Your task to perform on an android device: Open Google Chrome Image 0: 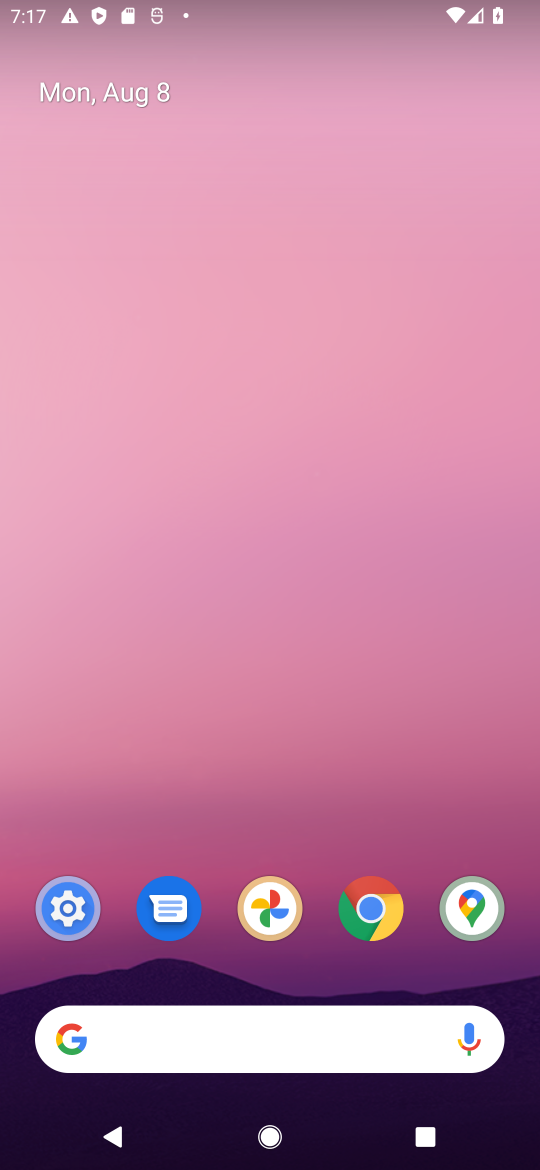
Step 0: click (372, 915)
Your task to perform on an android device: Open Google Chrome Image 1: 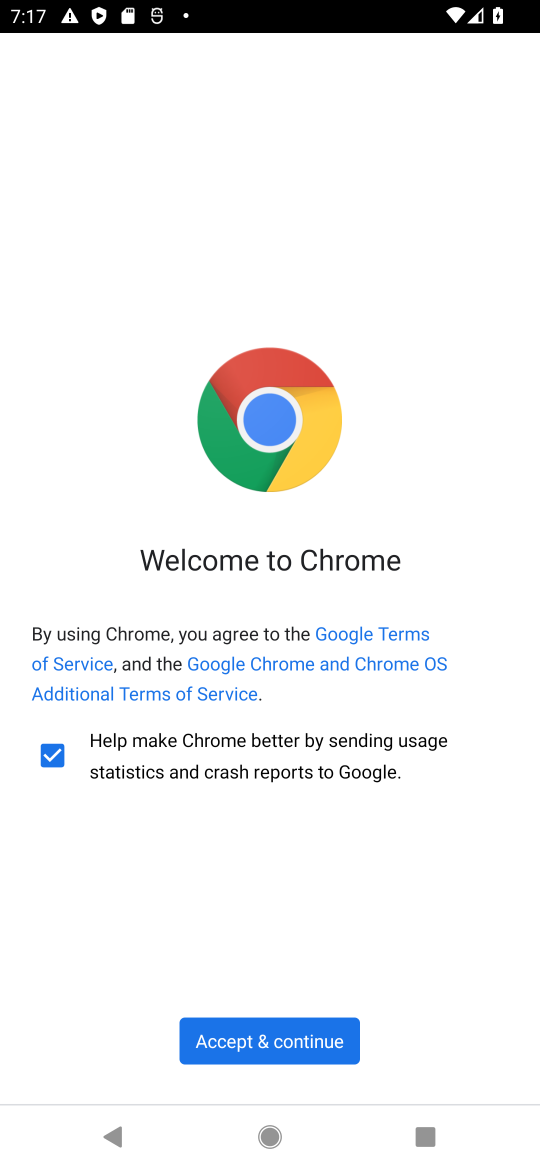
Step 1: click (230, 1042)
Your task to perform on an android device: Open Google Chrome Image 2: 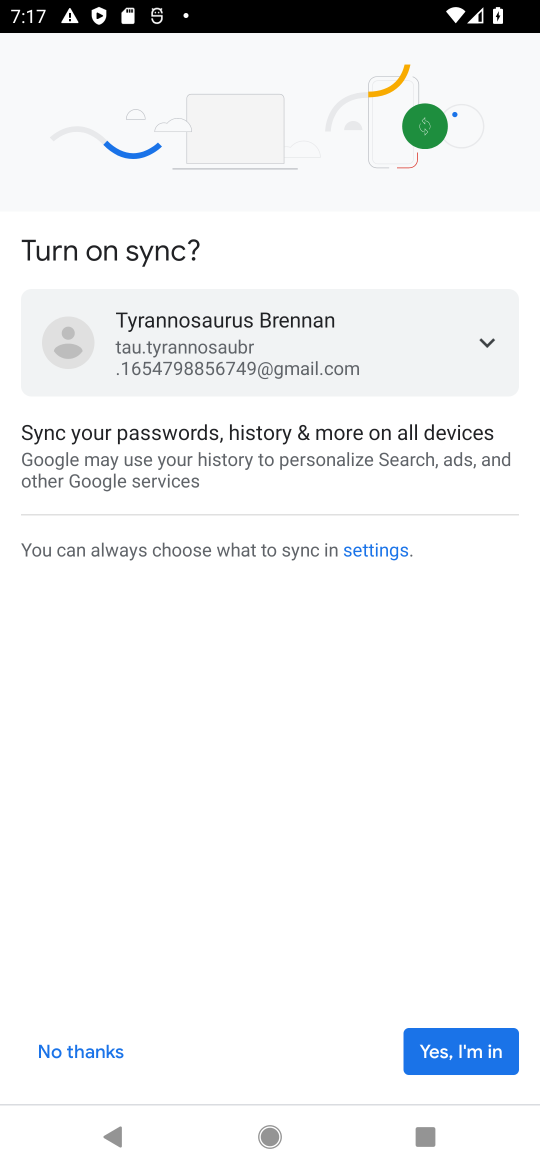
Step 2: click (452, 1034)
Your task to perform on an android device: Open Google Chrome Image 3: 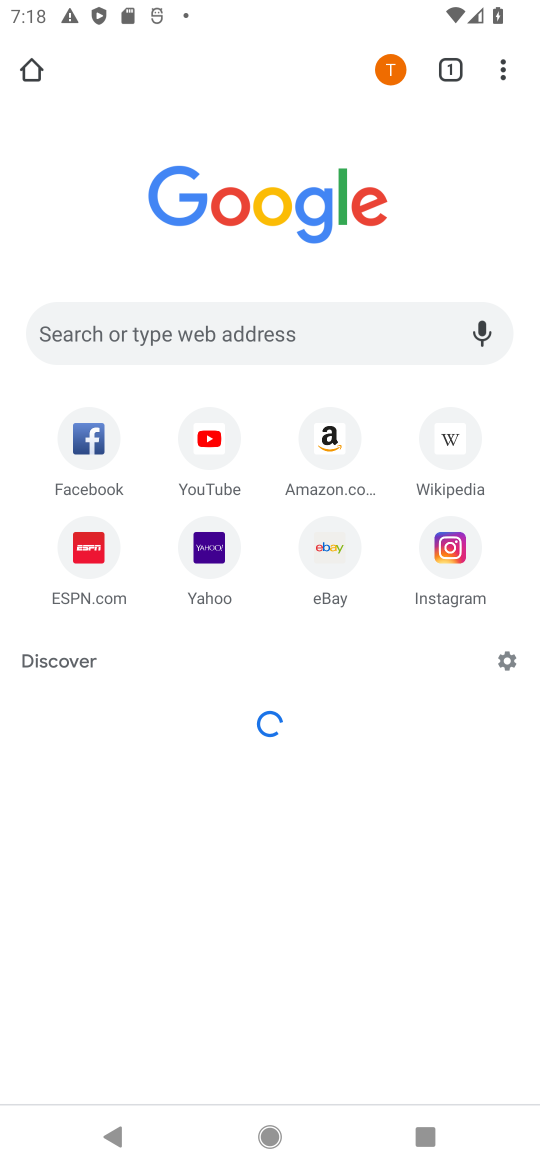
Step 3: click (449, 1046)
Your task to perform on an android device: Open Google Chrome Image 4: 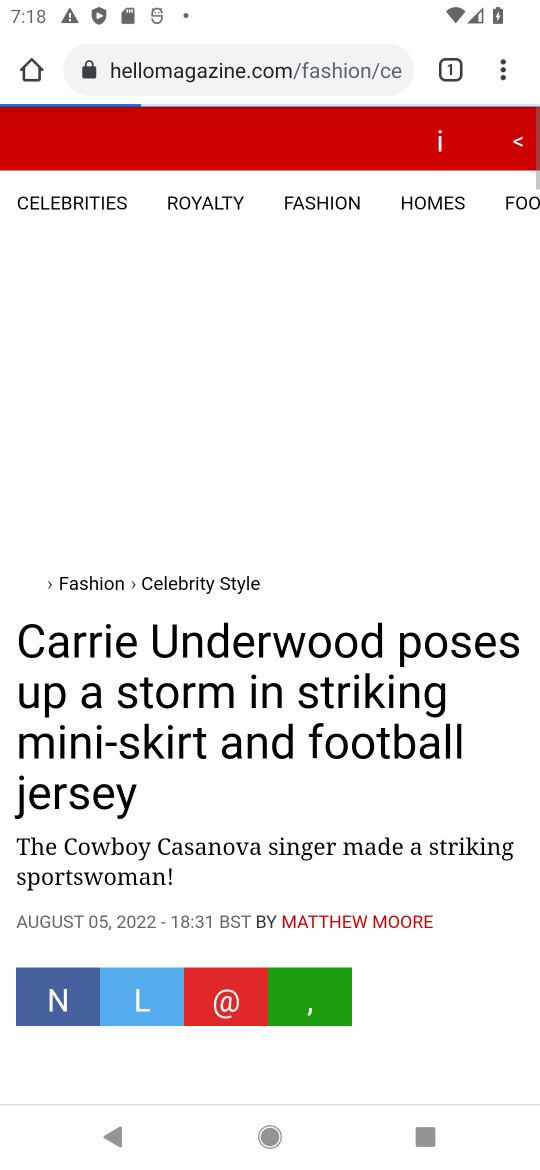
Step 4: task complete